Your task to perform on an android device: Open Google Chrome Image 0: 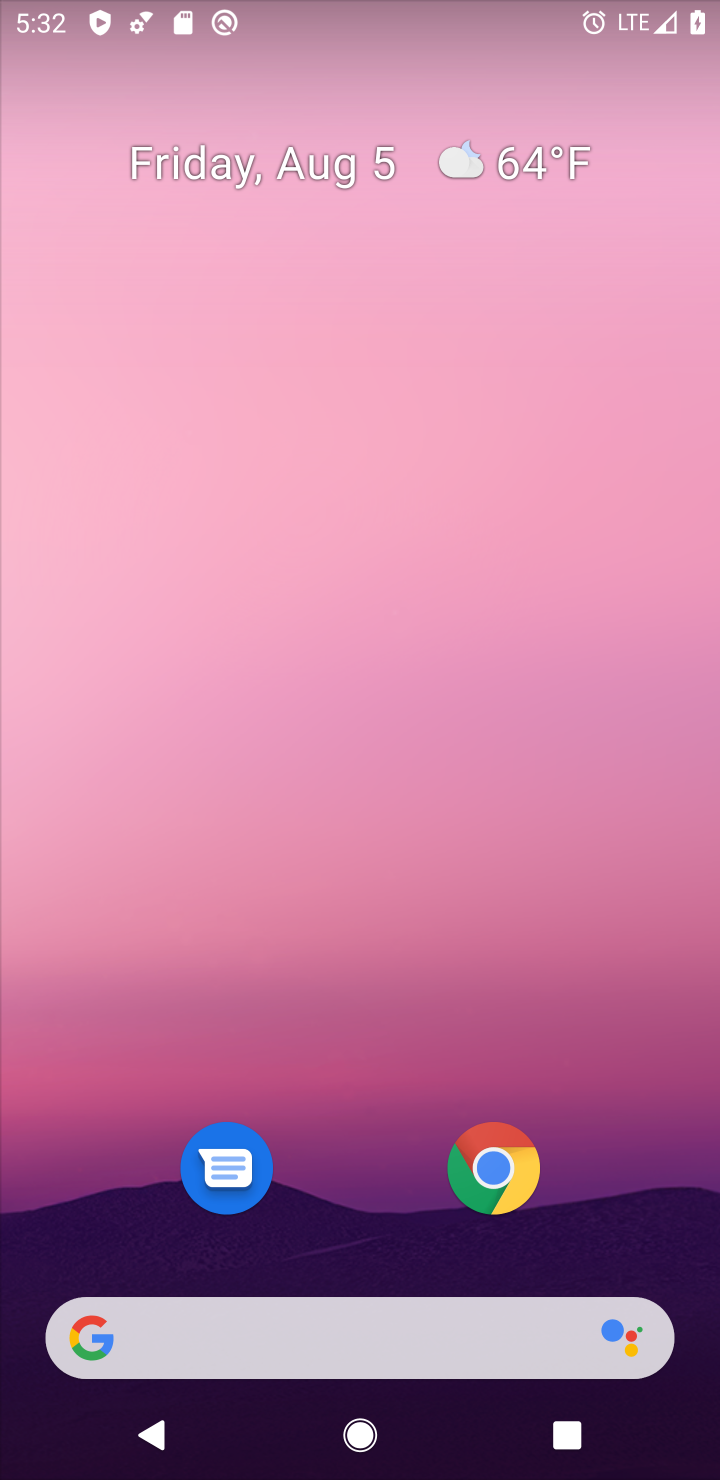
Step 0: click (498, 1183)
Your task to perform on an android device: Open Google Chrome Image 1: 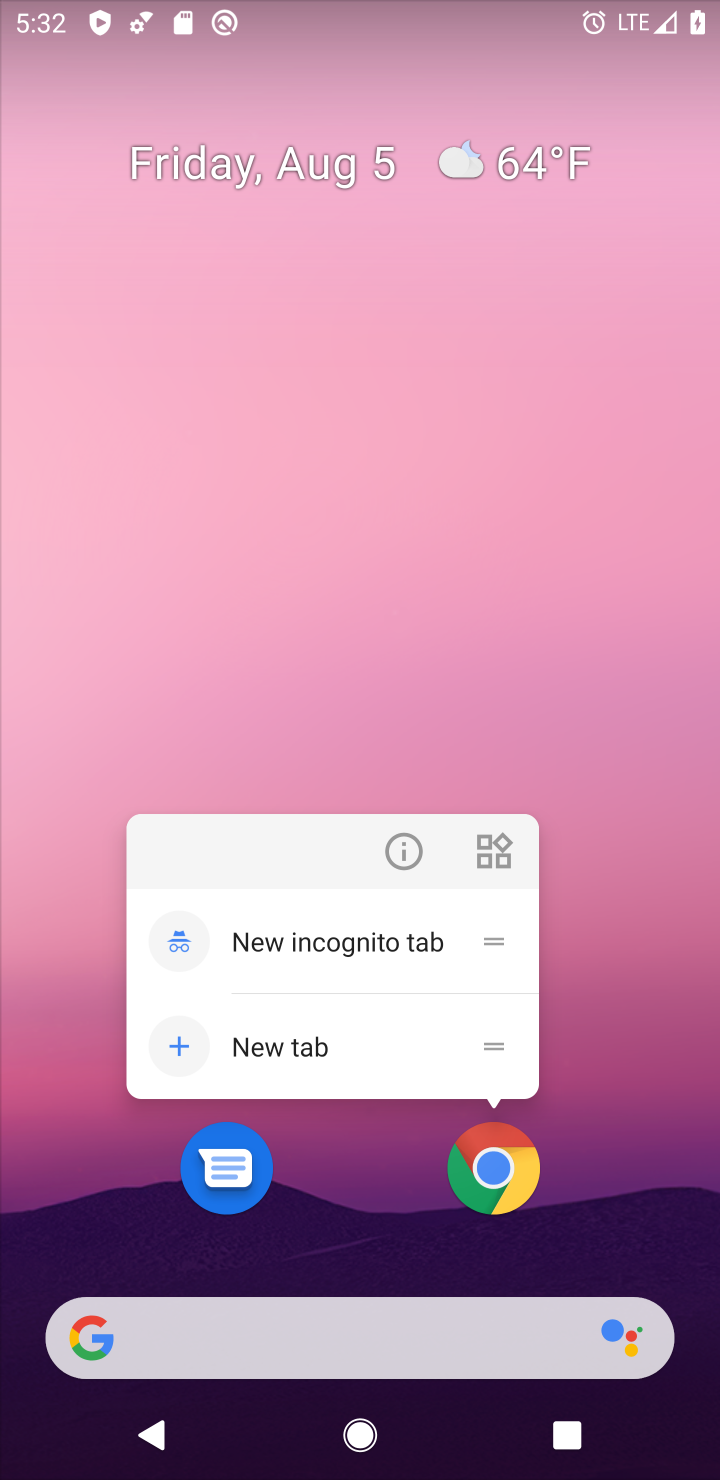
Step 1: click (649, 1147)
Your task to perform on an android device: Open Google Chrome Image 2: 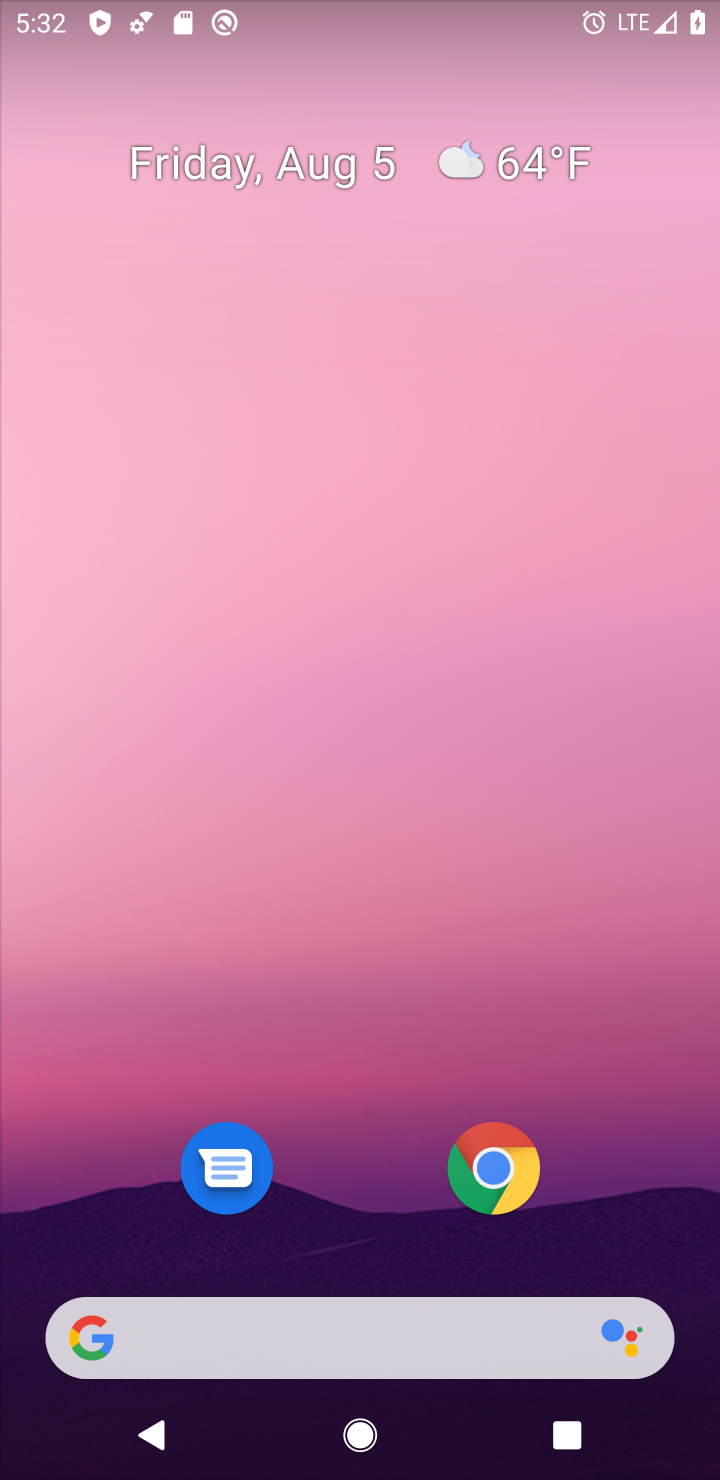
Step 2: click (516, 1162)
Your task to perform on an android device: Open Google Chrome Image 3: 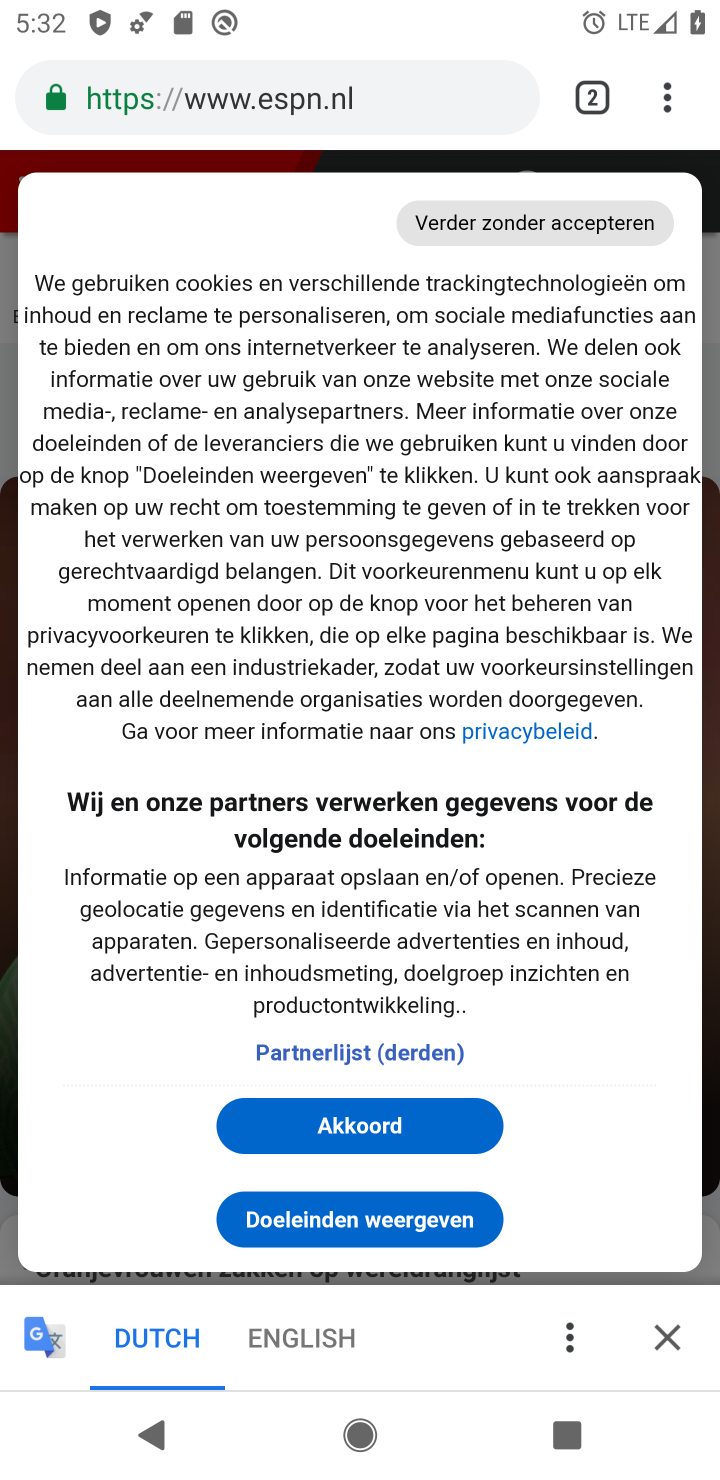
Step 3: click (407, 1120)
Your task to perform on an android device: Open Google Chrome Image 4: 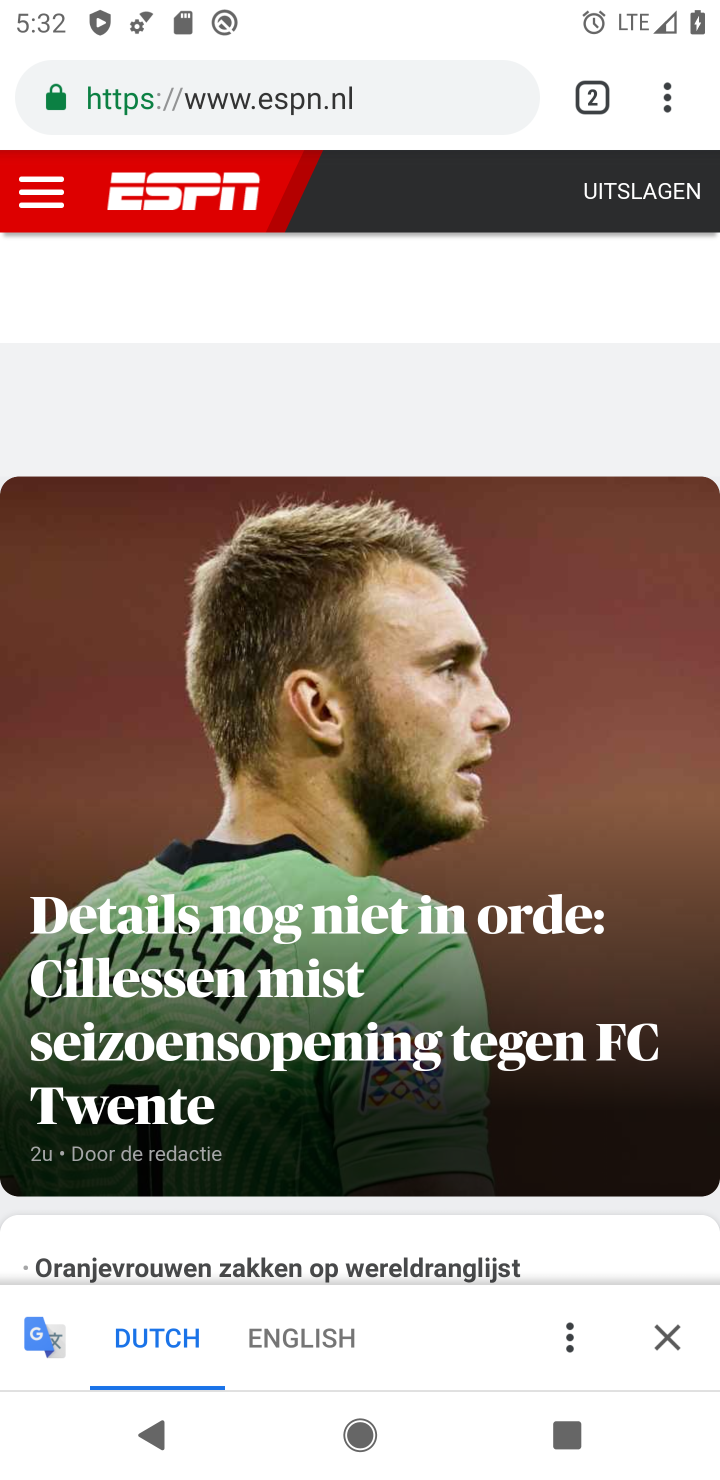
Step 4: task complete